Your task to perform on an android device: What is the news today? Image 0: 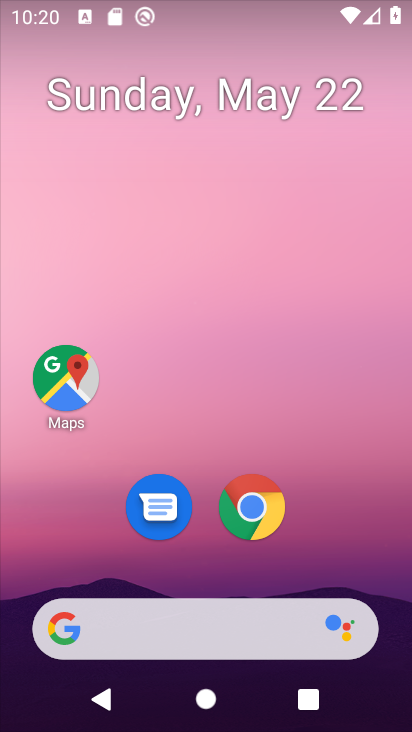
Step 0: click (171, 633)
Your task to perform on an android device: What is the news today? Image 1: 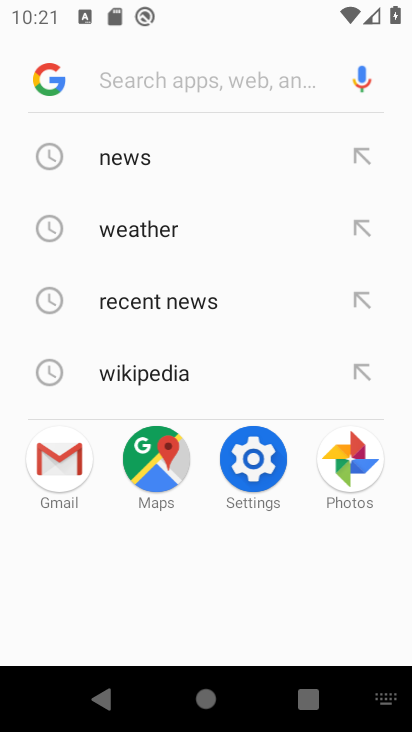
Step 1: click (143, 166)
Your task to perform on an android device: What is the news today? Image 2: 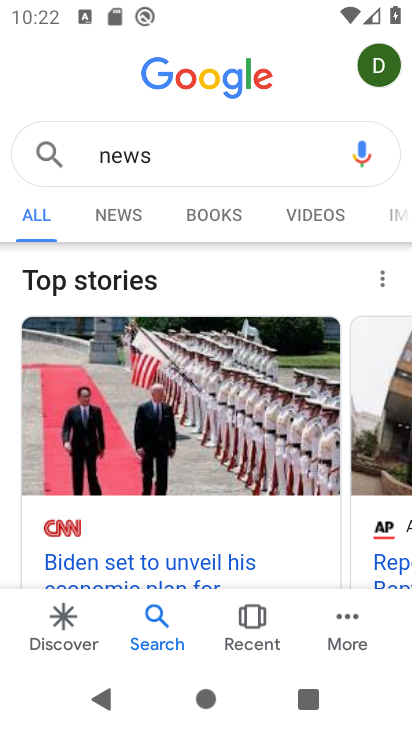
Step 2: task complete